Your task to perform on an android device: When is my next appointment? Image 0: 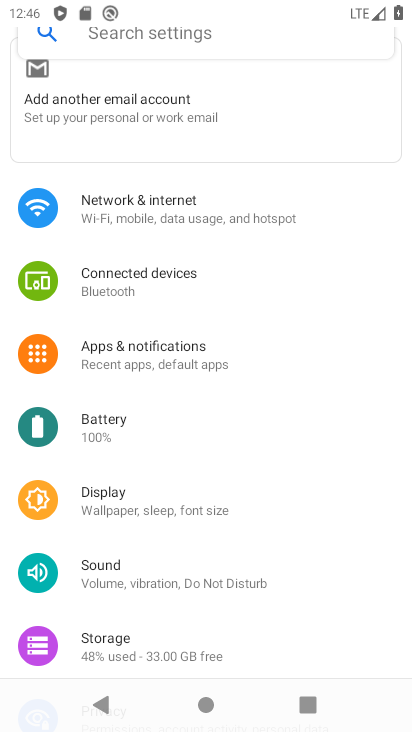
Step 0: press home button
Your task to perform on an android device: When is my next appointment? Image 1: 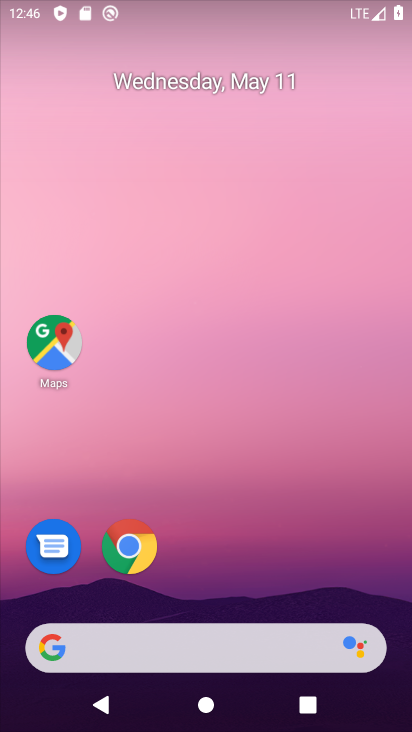
Step 1: drag from (281, 691) to (153, 210)
Your task to perform on an android device: When is my next appointment? Image 2: 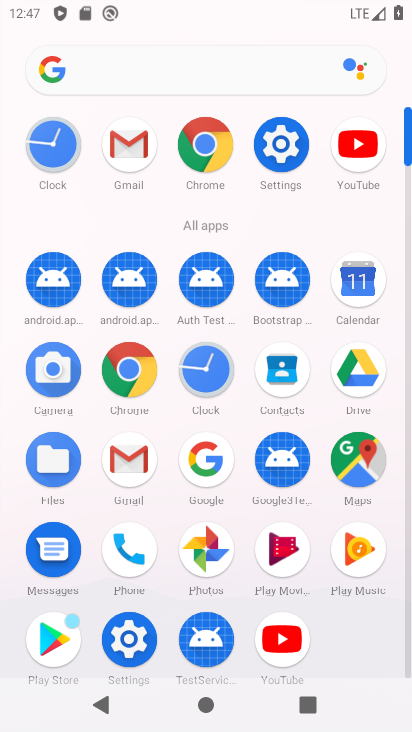
Step 2: click (348, 280)
Your task to perform on an android device: When is my next appointment? Image 3: 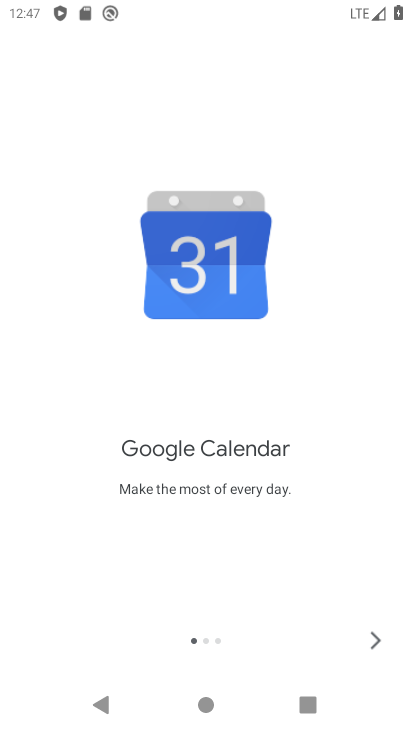
Step 3: click (373, 634)
Your task to perform on an android device: When is my next appointment? Image 4: 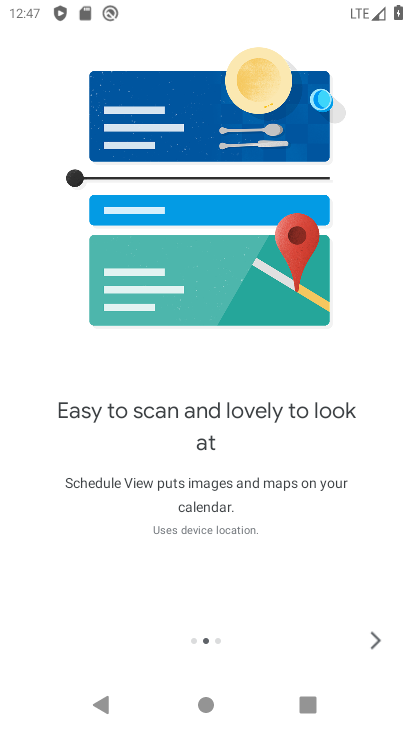
Step 4: click (351, 646)
Your task to perform on an android device: When is my next appointment? Image 5: 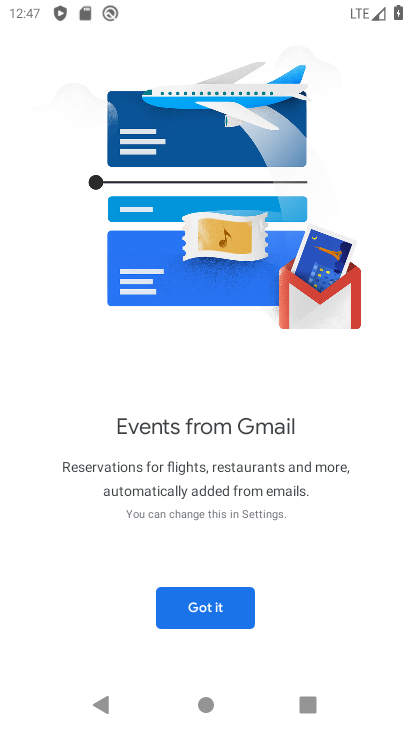
Step 5: click (194, 599)
Your task to perform on an android device: When is my next appointment? Image 6: 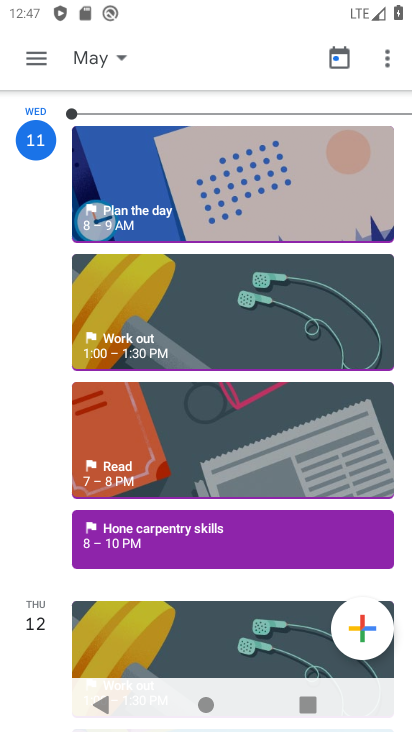
Step 6: click (21, 65)
Your task to perform on an android device: When is my next appointment? Image 7: 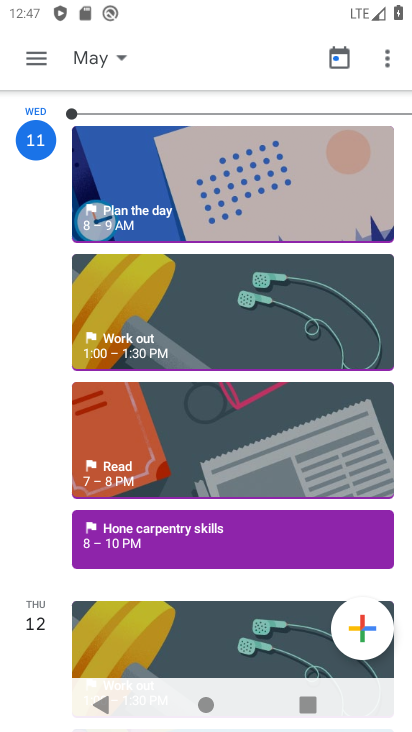
Step 7: click (47, 68)
Your task to perform on an android device: When is my next appointment? Image 8: 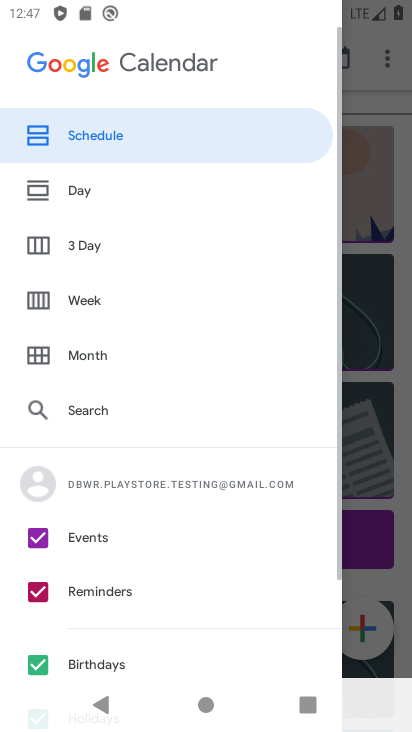
Step 8: click (99, 142)
Your task to perform on an android device: When is my next appointment? Image 9: 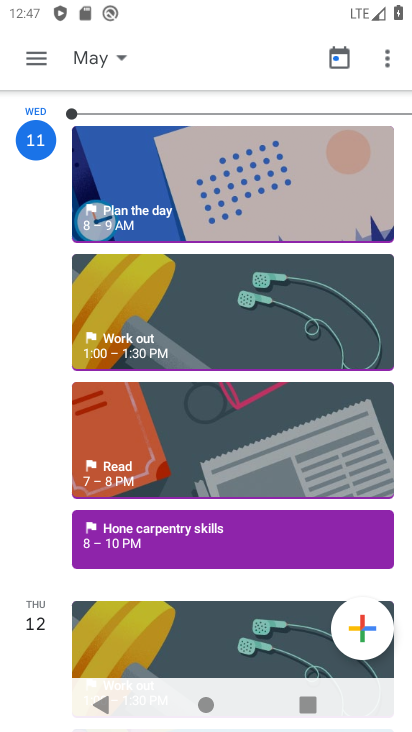
Step 9: task complete